Your task to perform on an android device: choose inbox layout in the gmail app Image 0: 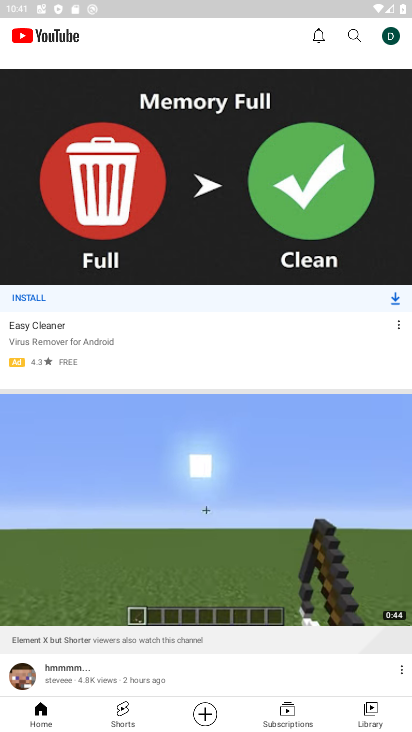
Step 0: press home button
Your task to perform on an android device: choose inbox layout in the gmail app Image 1: 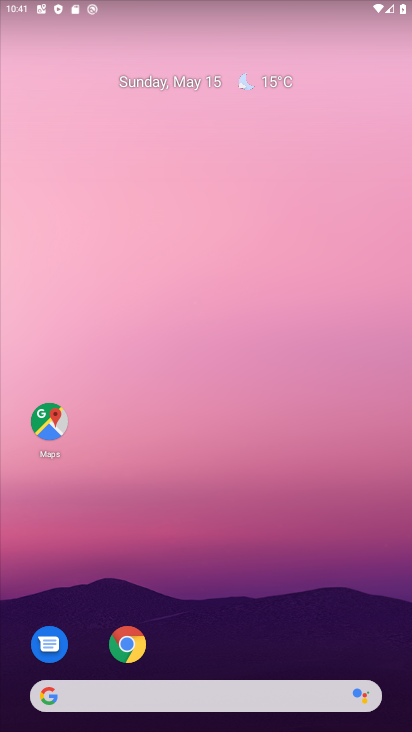
Step 1: drag from (238, 617) to (206, 156)
Your task to perform on an android device: choose inbox layout in the gmail app Image 2: 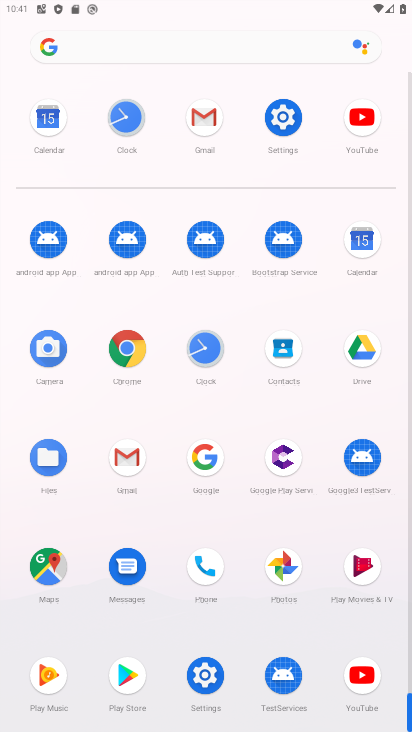
Step 2: click (121, 457)
Your task to perform on an android device: choose inbox layout in the gmail app Image 3: 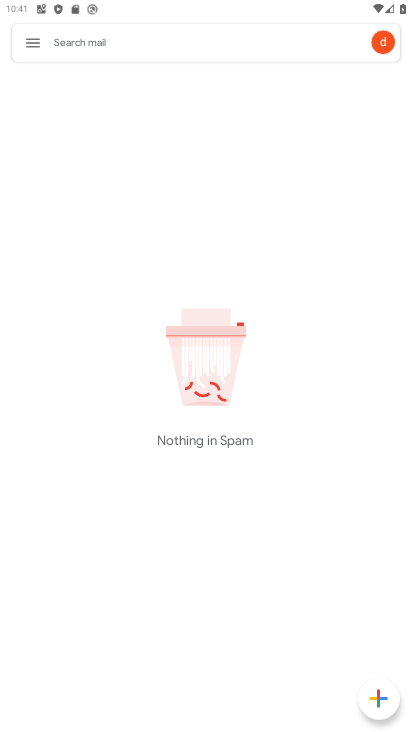
Step 3: click (35, 43)
Your task to perform on an android device: choose inbox layout in the gmail app Image 4: 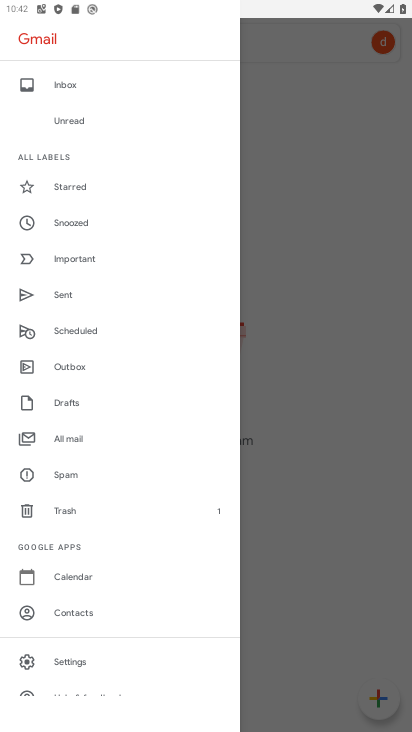
Step 4: click (69, 651)
Your task to perform on an android device: choose inbox layout in the gmail app Image 5: 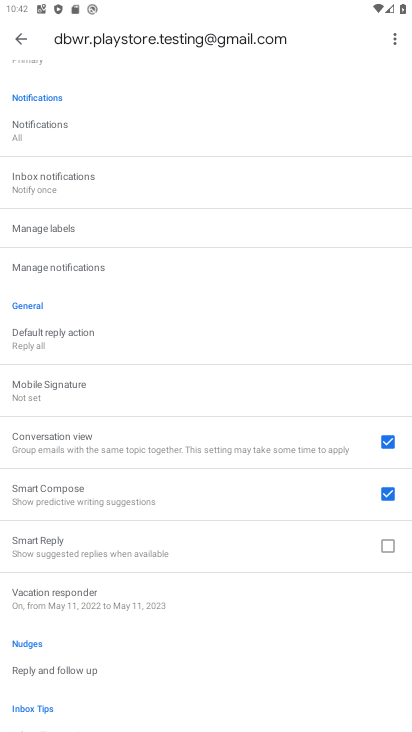
Step 5: drag from (89, 125) to (125, 513)
Your task to perform on an android device: choose inbox layout in the gmail app Image 6: 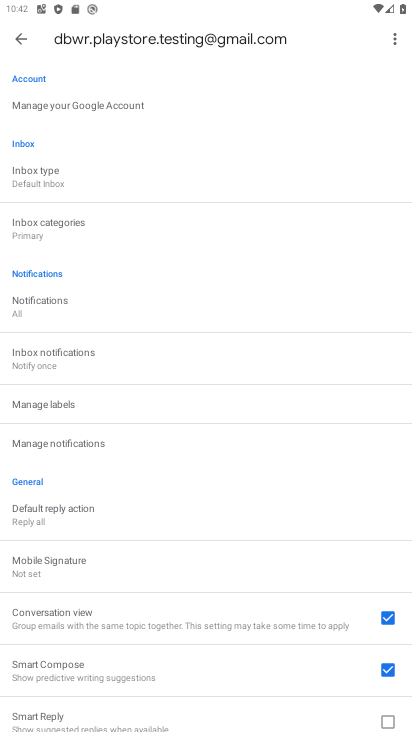
Step 6: drag from (105, 125) to (120, 449)
Your task to perform on an android device: choose inbox layout in the gmail app Image 7: 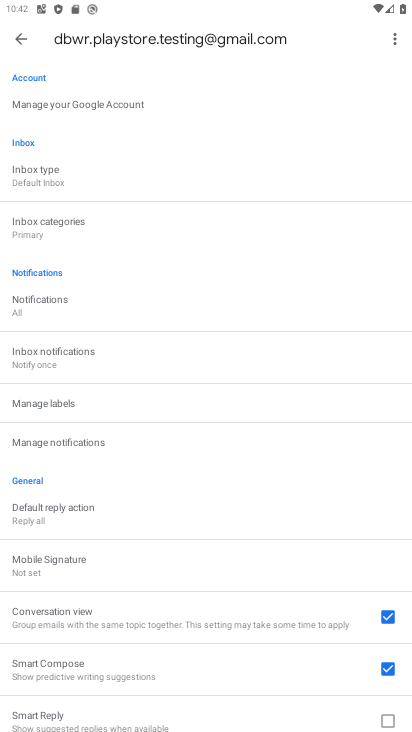
Step 7: click (64, 177)
Your task to perform on an android device: choose inbox layout in the gmail app Image 8: 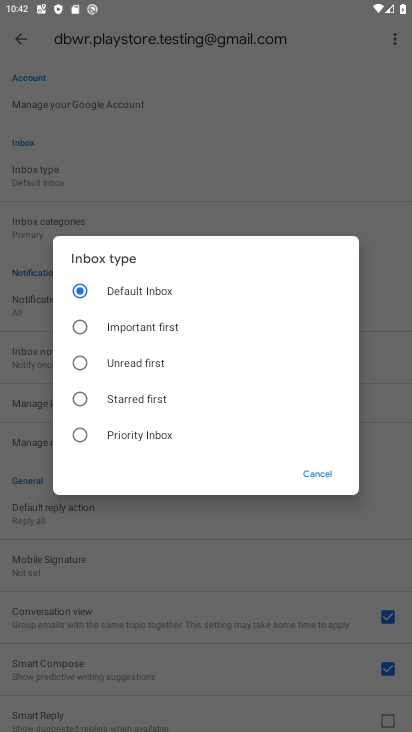
Step 8: click (131, 433)
Your task to perform on an android device: choose inbox layout in the gmail app Image 9: 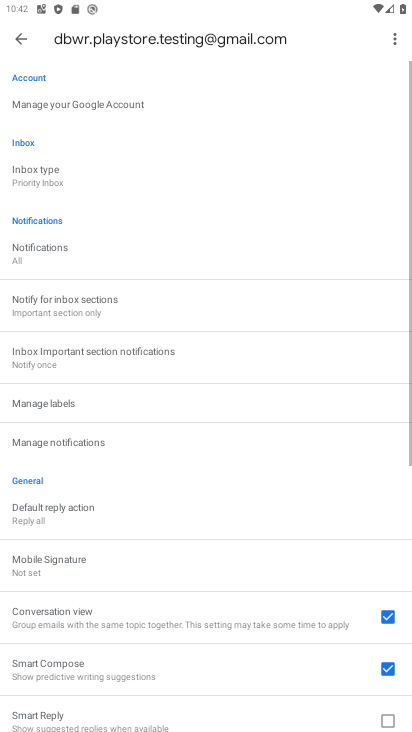
Step 9: task complete